Your task to perform on an android device: What is the recent news? Image 0: 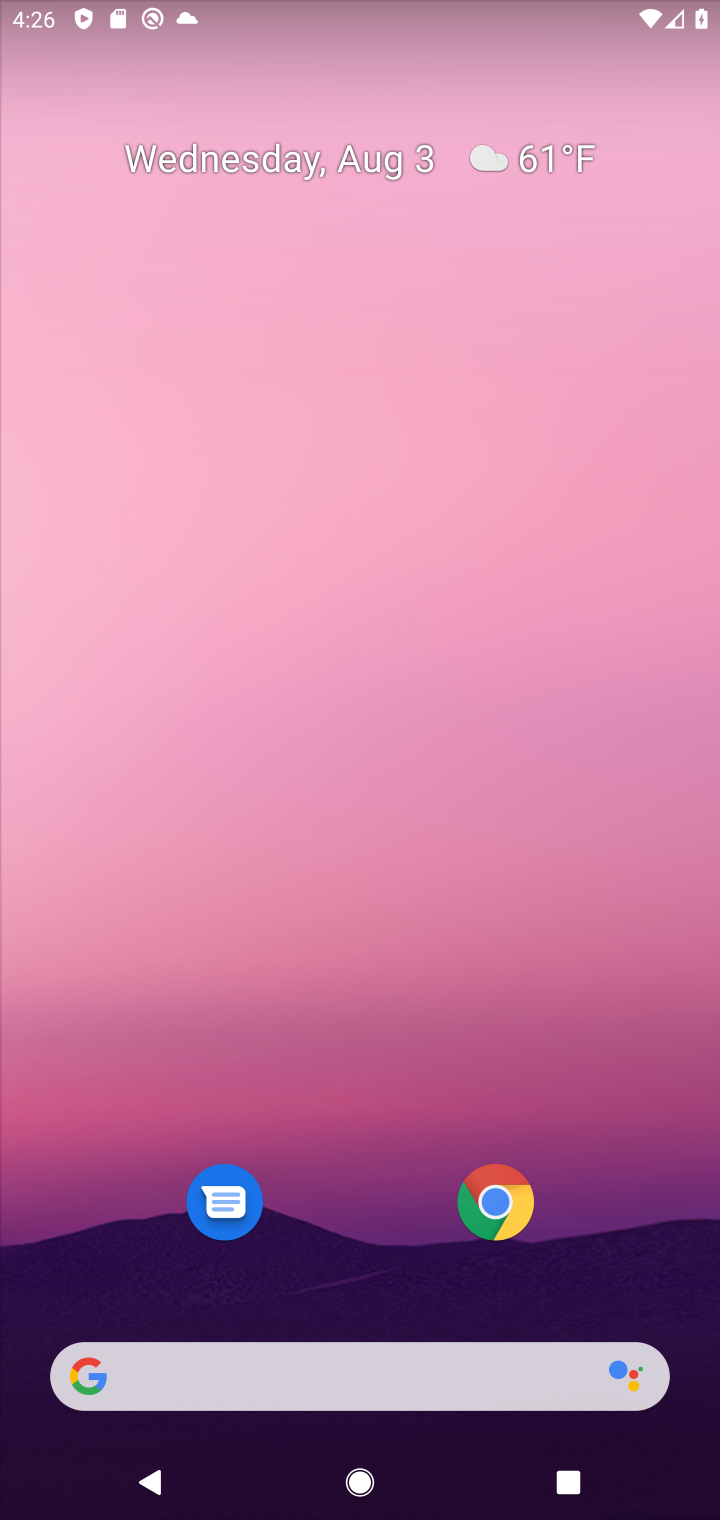
Step 0: click (479, 1367)
Your task to perform on an android device: What is the recent news? Image 1: 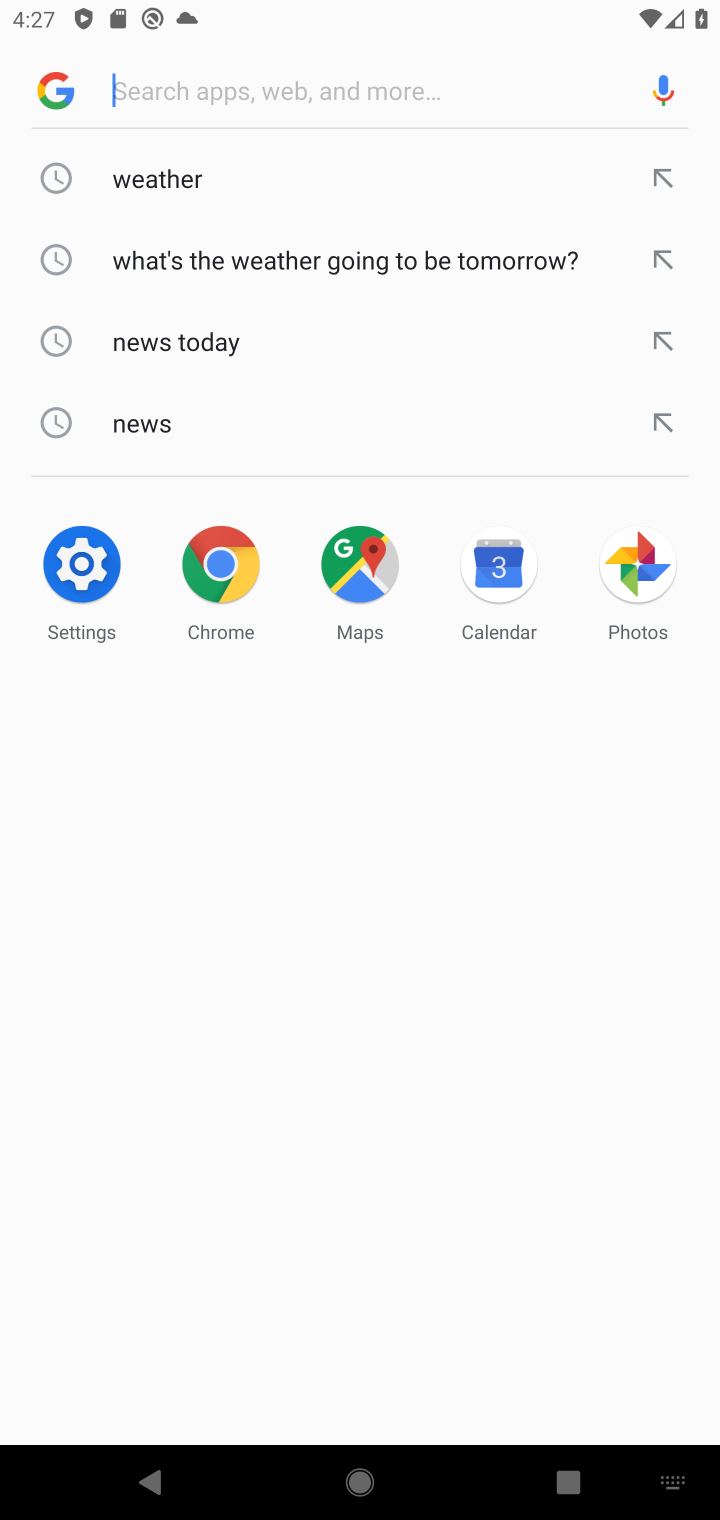
Step 1: click (200, 74)
Your task to perform on an android device: What is the recent news? Image 2: 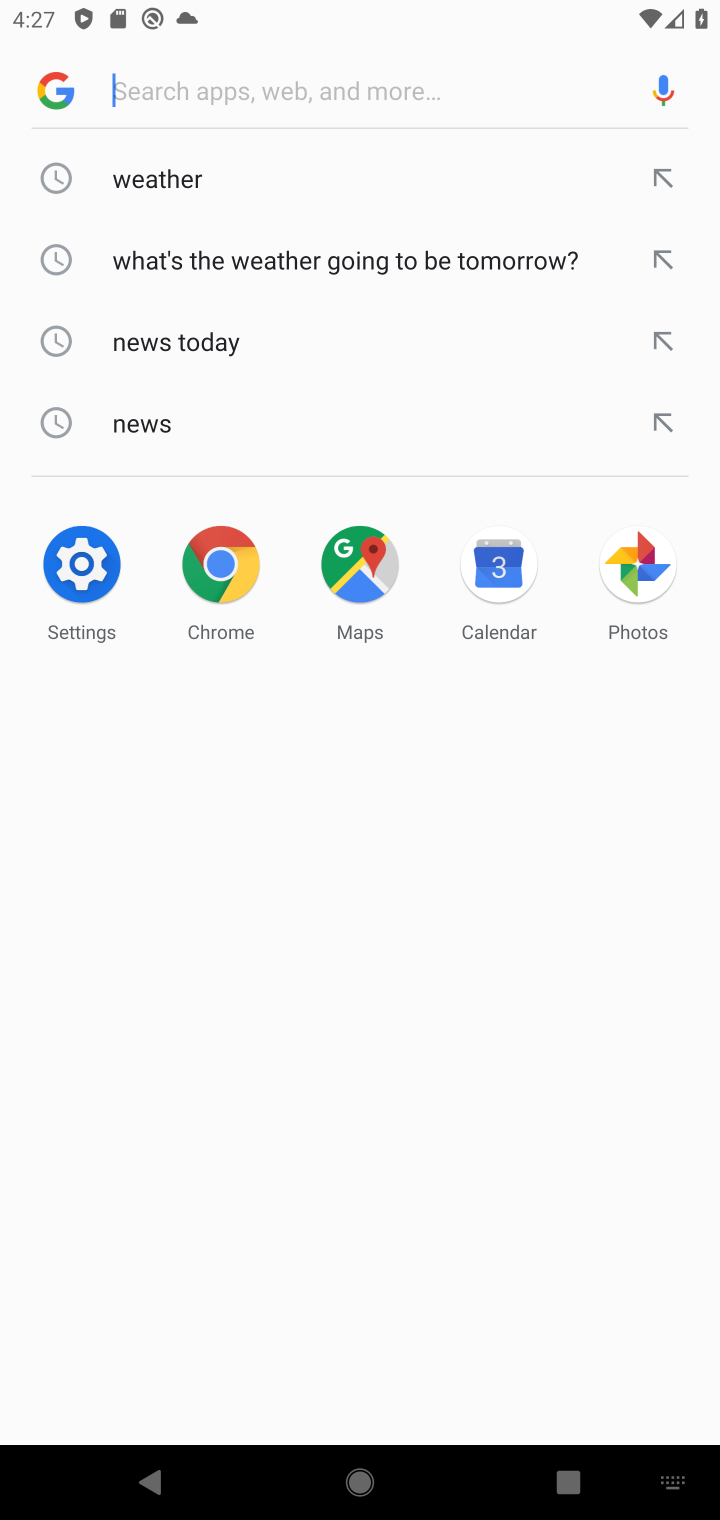
Step 2: type "recent news"
Your task to perform on an android device: What is the recent news? Image 3: 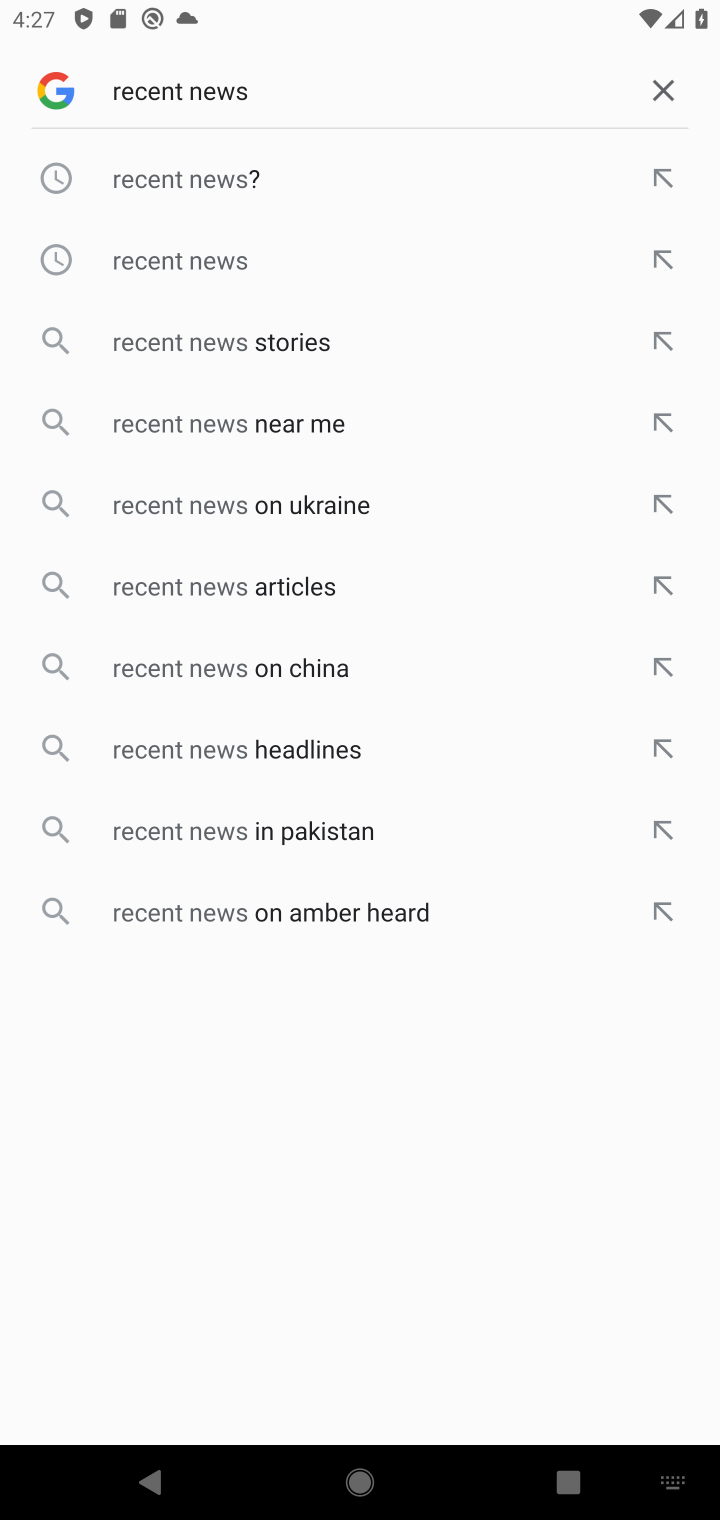
Step 3: click (165, 149)
Your task to perform on an android device: What is the recent news? Image 4: 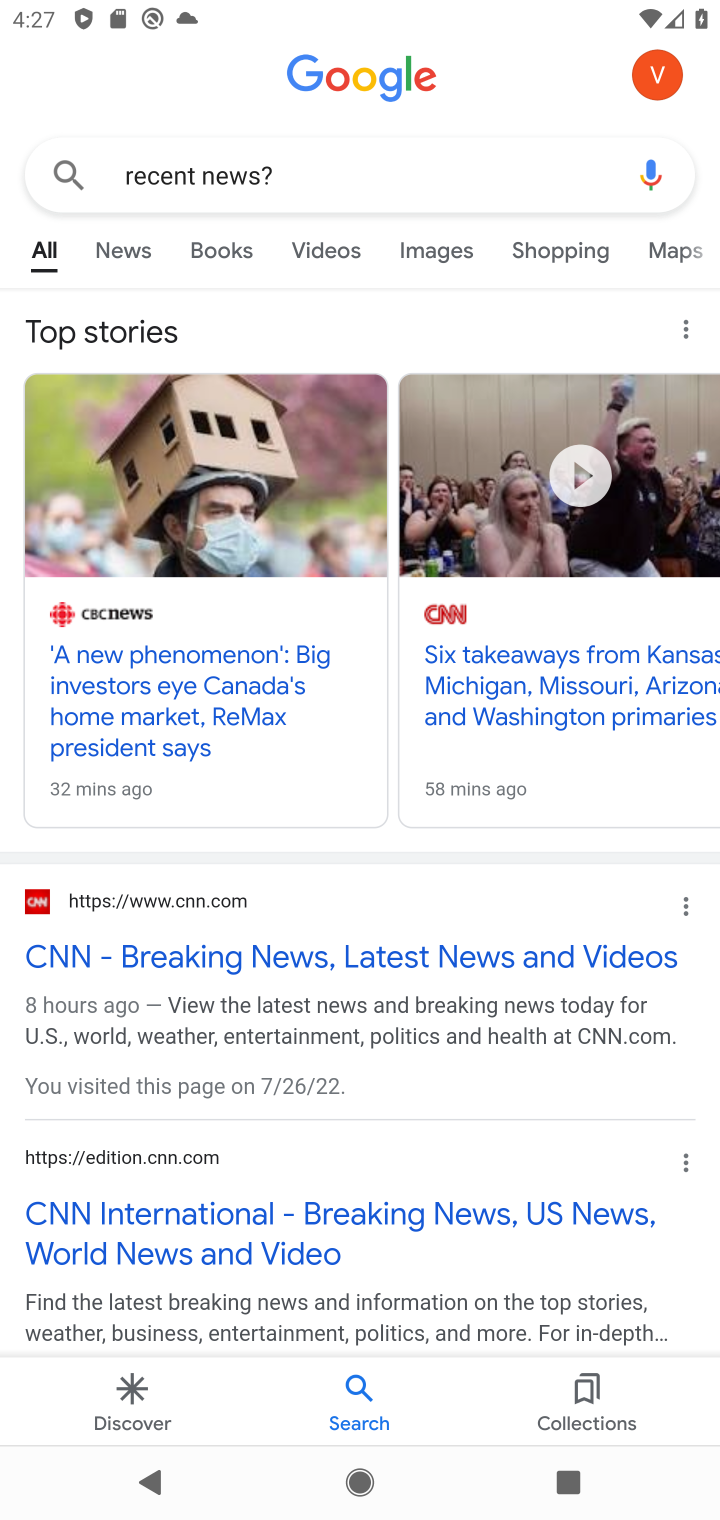
Step 4: task complete